Your task to perform on an android device: Open the map Image 0: 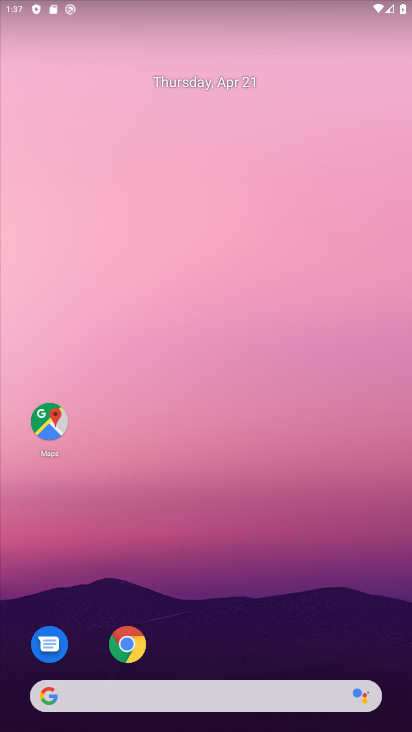
Step 0: click (58, 416)
Your task to perform on an android device: Open the map Image 1: 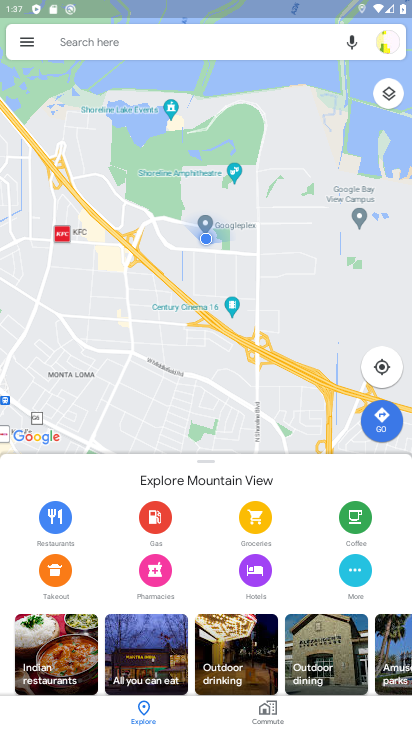
Step 1: task complete